Your task to perform on an android device: What's on my calendar tomorrow? Image 0: 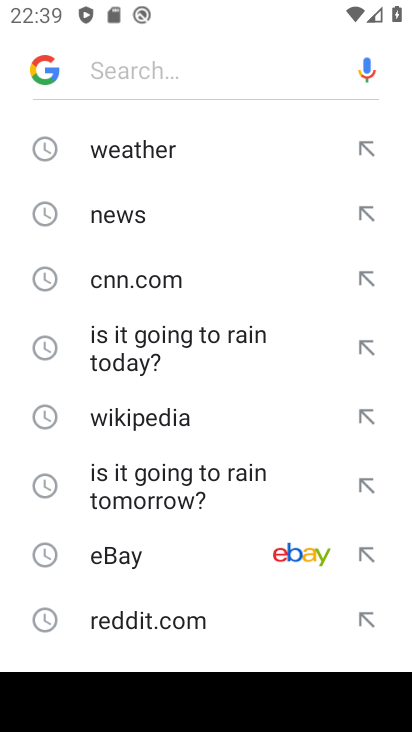
Step 0: press back button
Your task to perform on an android device: What's on my calendar tomorrow? Image 1: 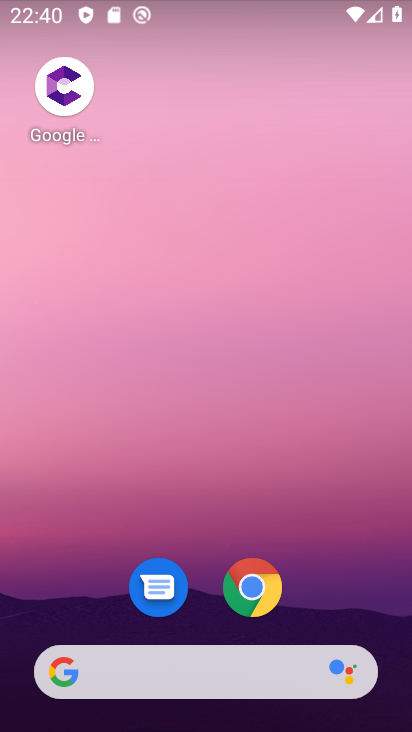
Step 1: drag from (216, 642) to (154, 69)
Your task to perform on an android device: What's on my calendar tomorrow? Image 2: 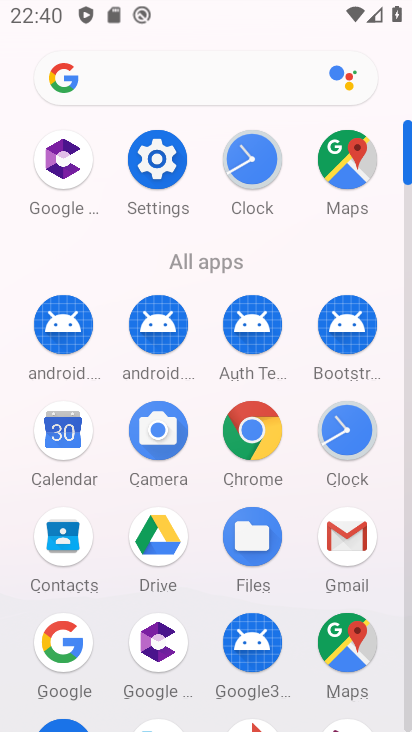
Step 2: click (62, 450)
Your task to perform on an android device: What's on my calendar tomorrow? Image 3: 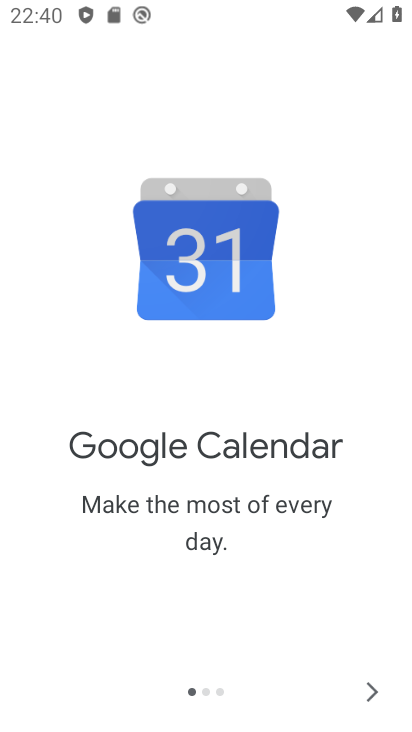
Step 3: click (372, 684)
Your task to perform on an android device: What's on my calendar tomorrow? Image 4: 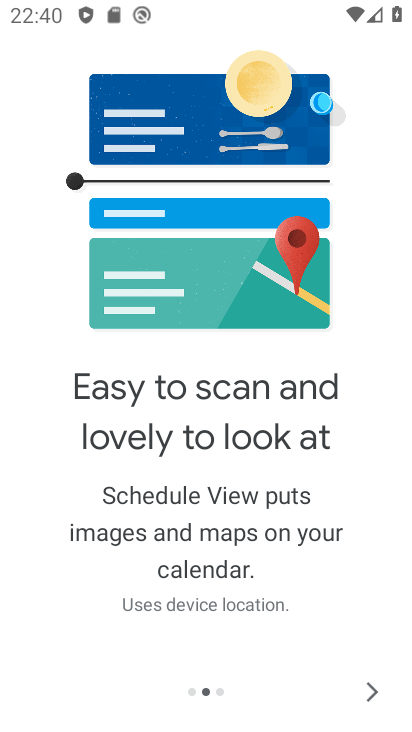
Step 4: click (372, 684)
Your task to perform on an android device: What's on my calendar tomorrow? Image 5: 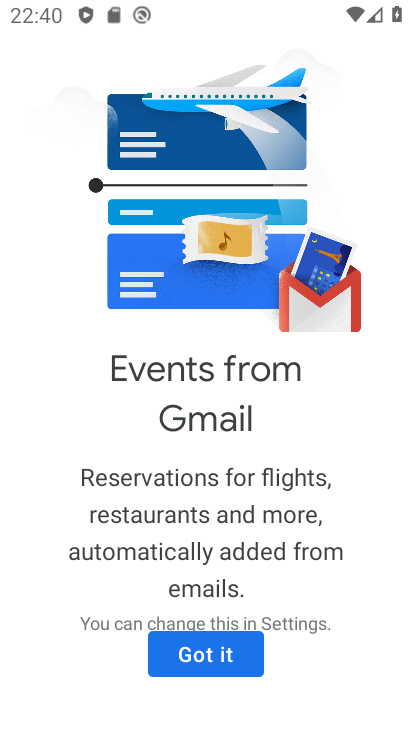
Step 5: click (230, 651)
Your task to perform on an android device: What's on my calendar tomorrow? Image 6: 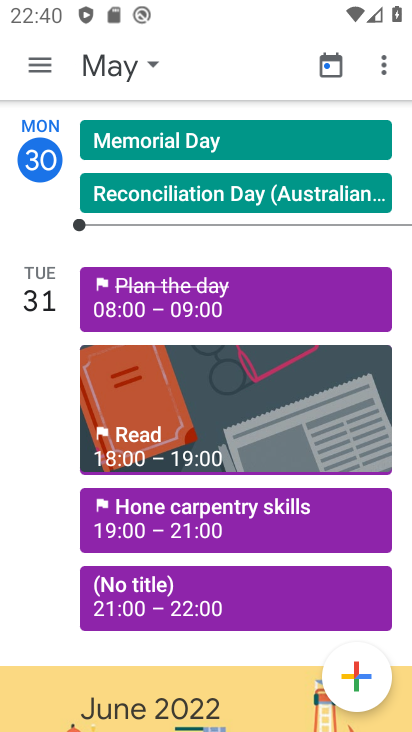
Step 6: click (35, 292)
Your task to perform on an android device: What's on my calendar tomorrow? Image 7: 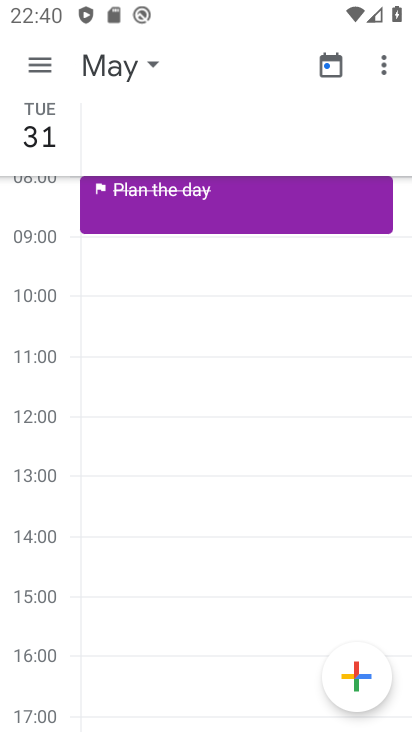
Step 7: task complete